Your task to perform on an android device: Go to ESPN.com Image 0: 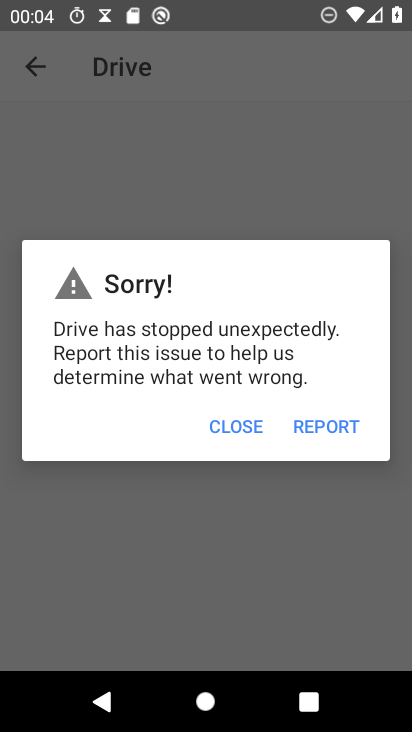
Step 0: press home button
Your task to perform on an android device: Go to ESPN.com Image 1: 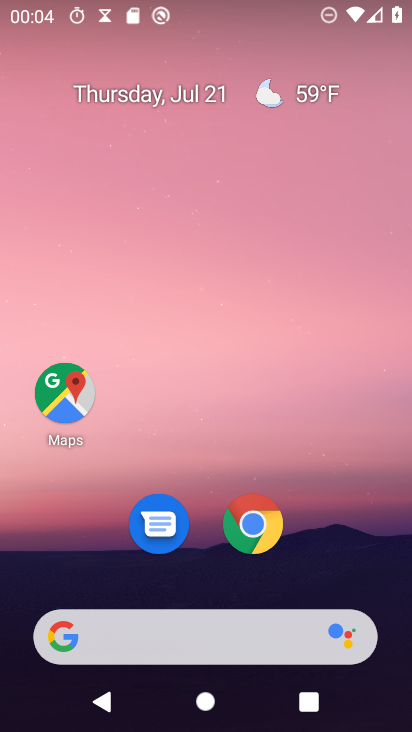
Step 1: click (245, 536)
Your task to perform on an android device: Go to ESPN.com Image 2: 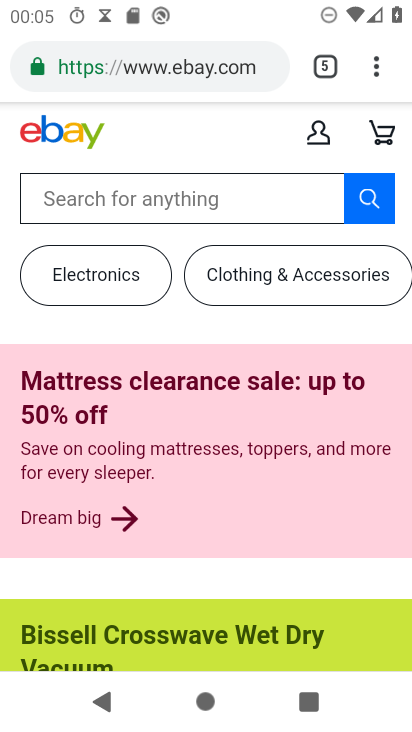
Step 2: drag from (376, 61) to (239, 140)
Your task to perform on an android device: Go to ESPN.com Image 3: 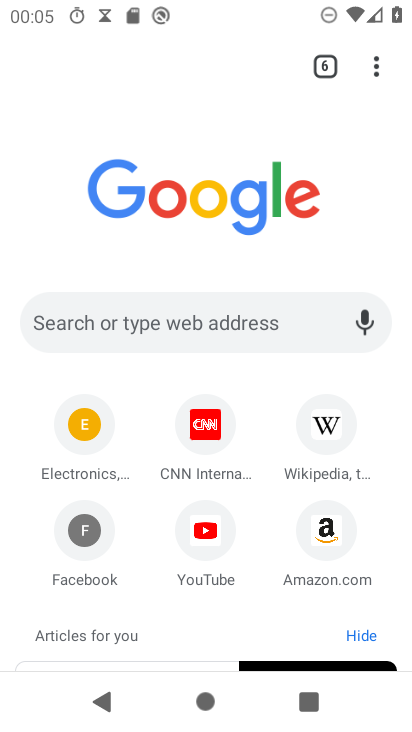
Step 3: click (129, 319)
Your task to perform on an android device: Go to ESPN.com Image 4: 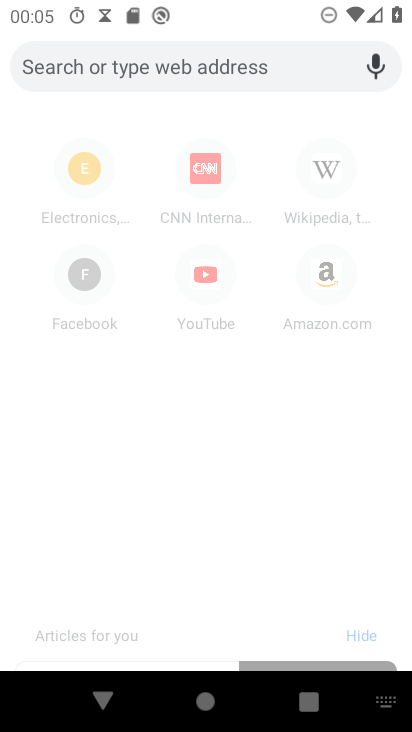
Step 4: type "espn.com"
Your task to perform on an android device: Go to ESPN.com Image 5: 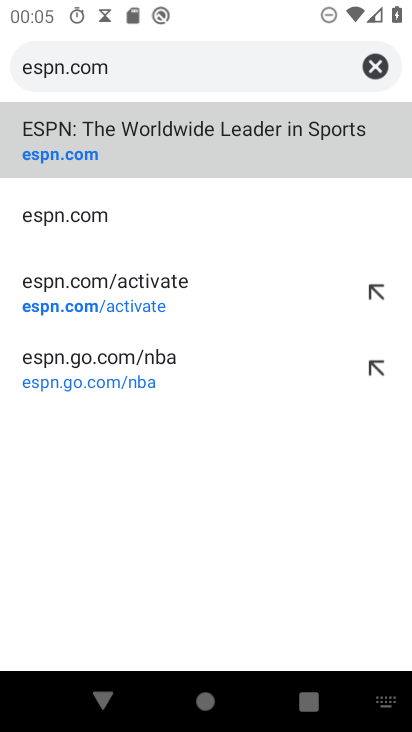
Step 5: click (141, 143)
Your task to perform on an android device: Go to ESPN.com Image 6: 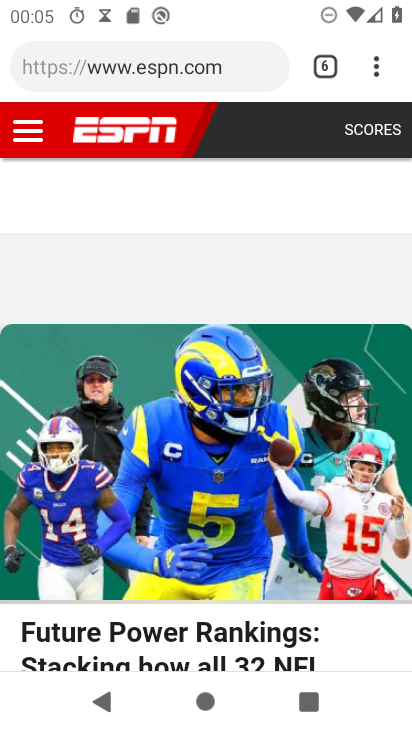
Step 6: task complete